Your task to perform on an android device: open chrome privacy settings Image 0: 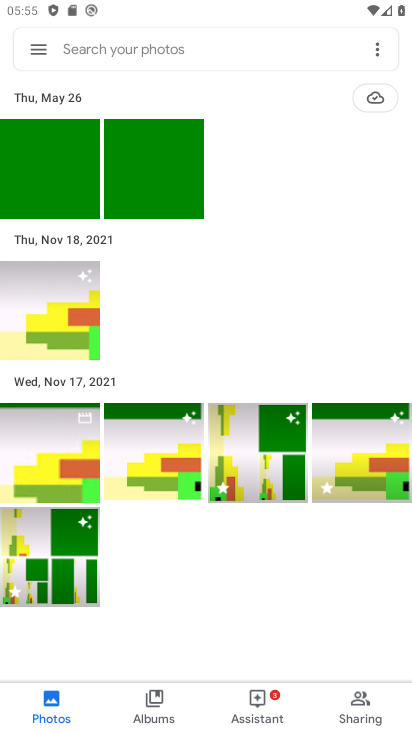
Step 0: press home button
Your task to perform on an android device: open chrome privacy settings Image 1: 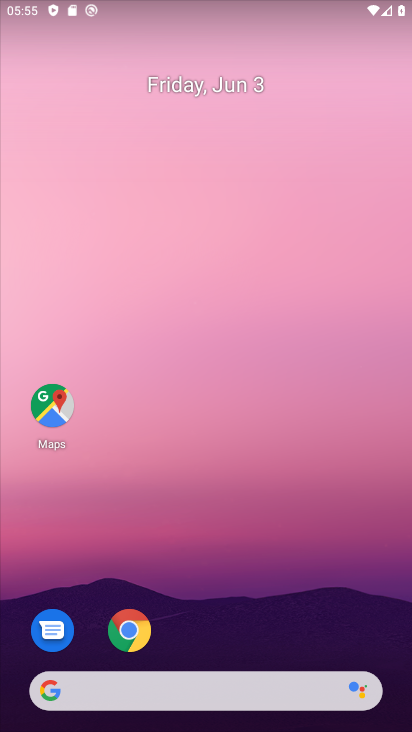
Step 1: click (148, 640)
Your task to perform on an android device: open chrome privacy settings Image 2: 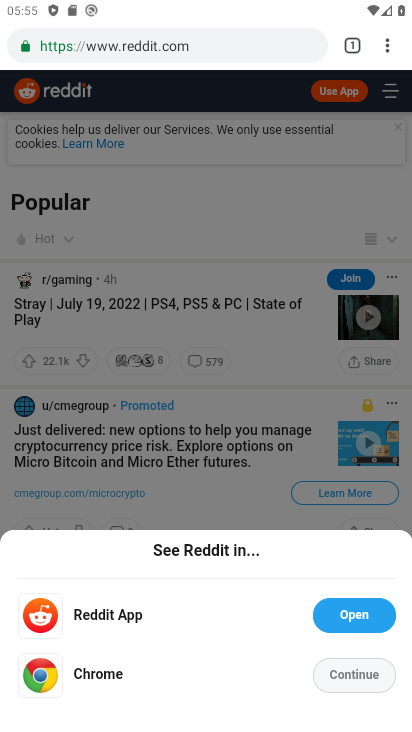
Step 2: click (401, 44)
Your task to perform on an android device: open chrome privacy settings Image 3: 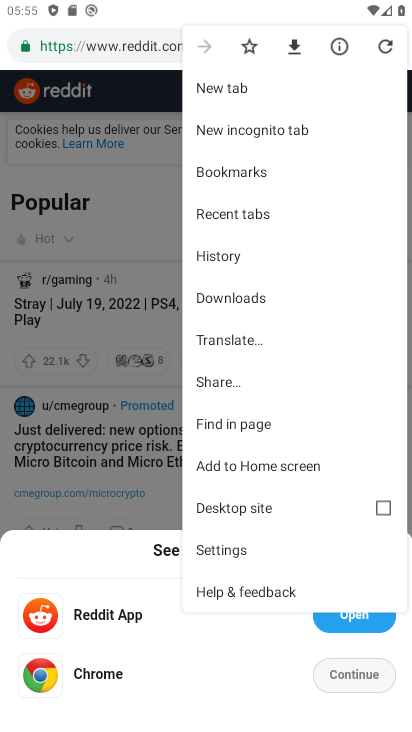
Step 3: drag from (224, 543) to (289, 216)
Your task to perform on an android device: open chrome privacy settings Image 4: 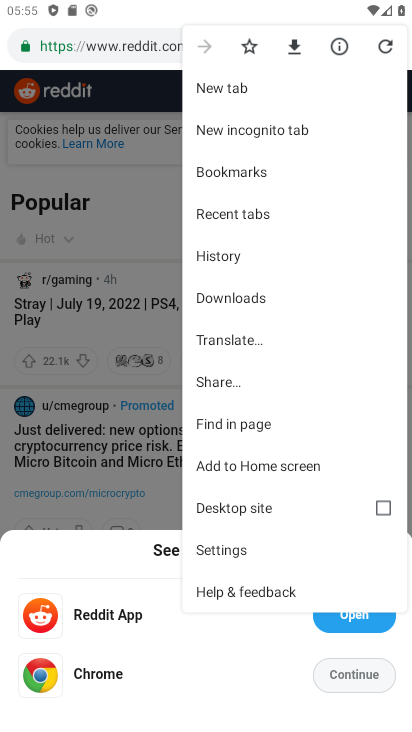
Step 4: click (273, 565)
Your task to perform on an android device: open chrome privacy settings Image 5: 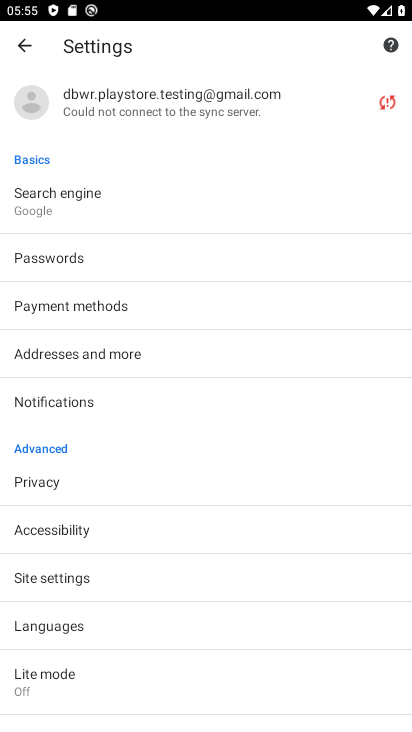
Step 5: click (78, 479)
Your task to perform on an android device: open chrome privacy settings Image 6: 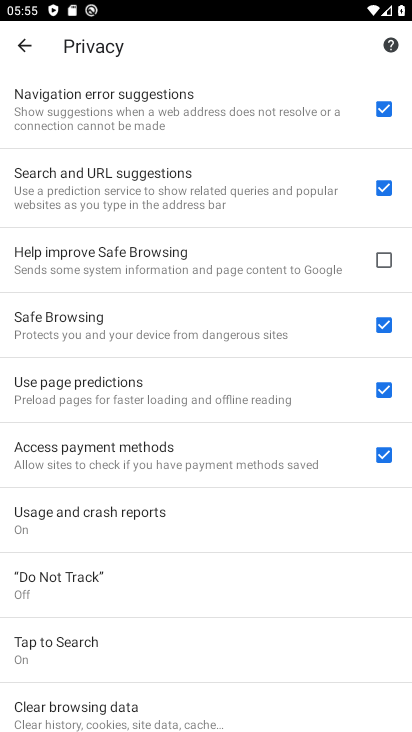
Step 6: task complete